Your task to perform on an android device: When is my next meeting? Image 0: 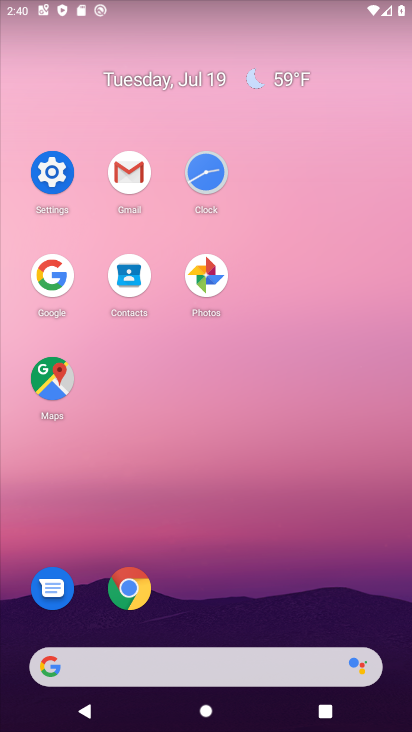
Step 0: drag from (267, 515) to (320, 180)
Your task to perform on an android device: When is my next meeting? Image 1: 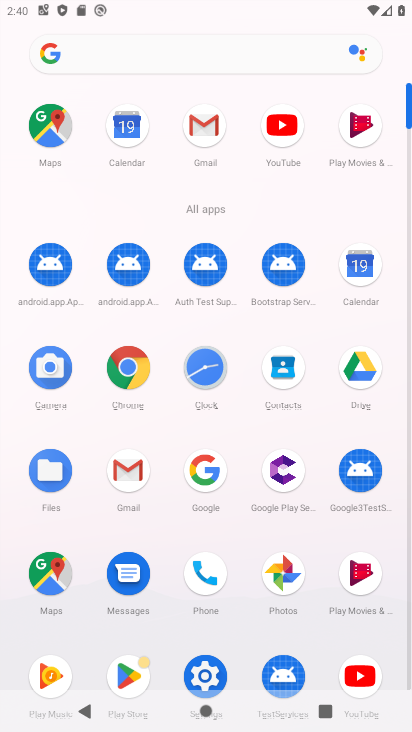
Step 1: drag from (349, 257) to (124, 372)
Your task to perform on an android device: When is my next meeting? Image 2: 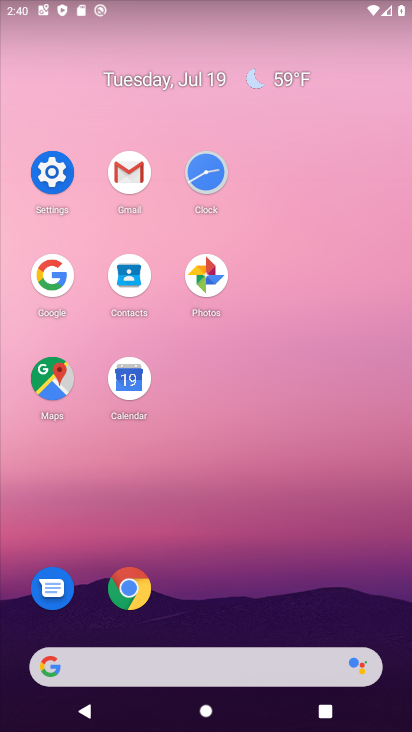
Step 2: click (124, 372)
Your task to perform on an android device: When is my next meeting? Image 3: 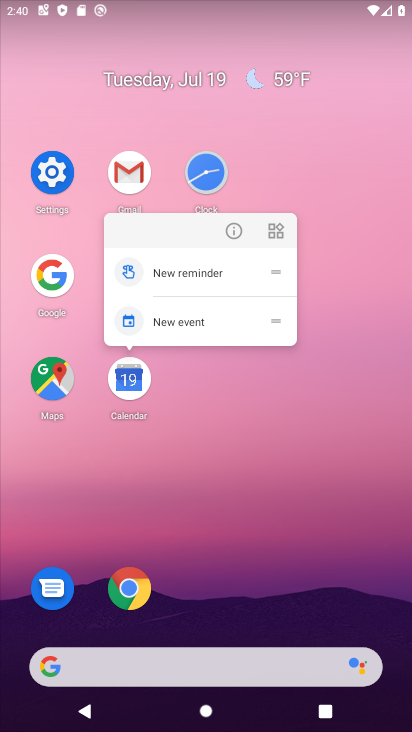
Step 3: click (124, 372)
Your task to perform on an android device: When is my next meeting? Image 4: 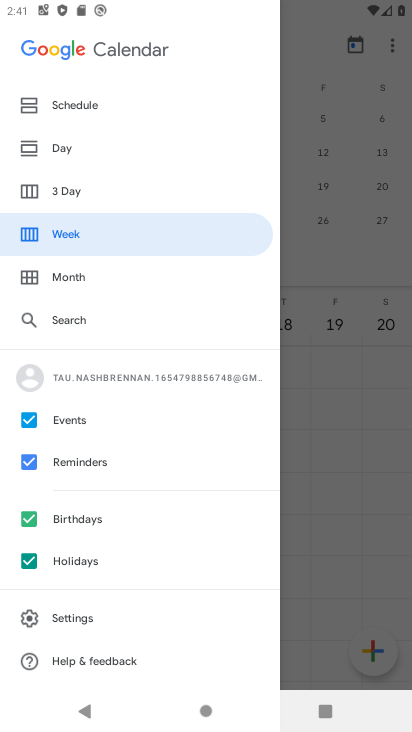
Step 4: click (151, 158)
Your task to perform on an android device: When is my next meeting? Image 5: 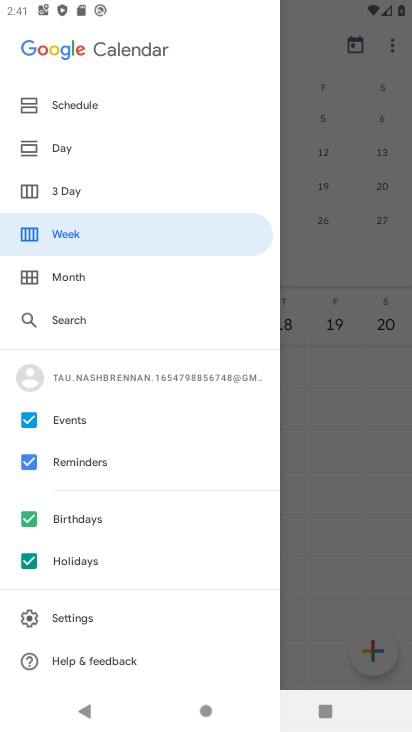
Step 5: click (79, 143)
Your task to perform on an android device: When is my next meeting? Image 6: 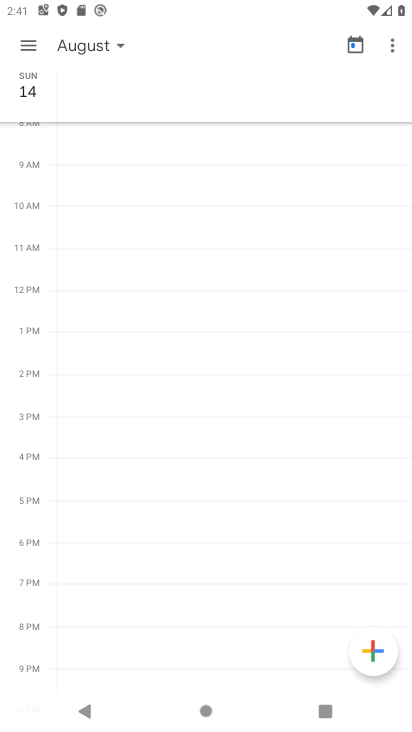
Step 6: task complete